Your task to perform on an android device: Search for vegetarian restaurants on Maps Image 0: 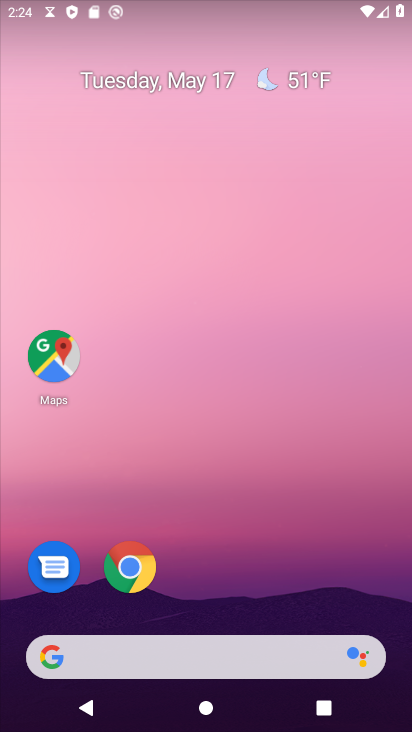
Step 0: click (57, 361)
Your task to perform on an android device: Search for vegetarian restaurants on Maps Image 1: 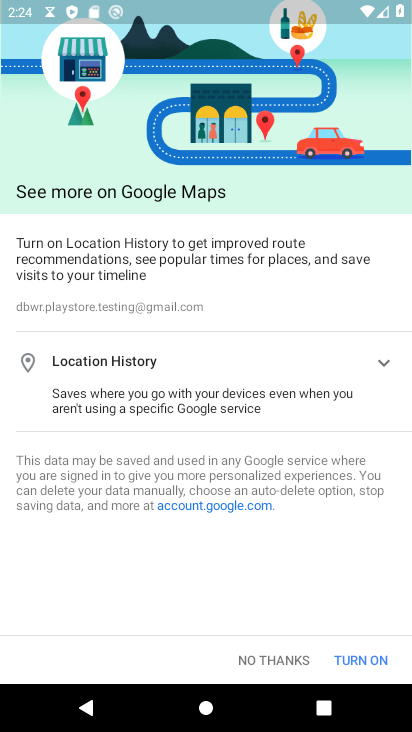
Step 1: click (352, 665)
Your task to perform on an android device: Search for vegetarian restaurants on Maps Image 2: 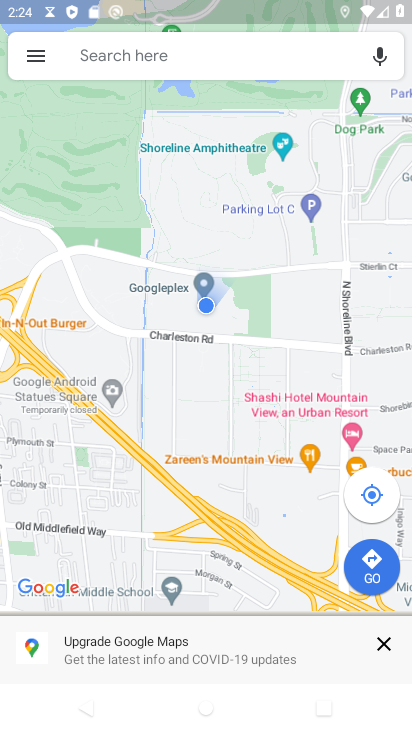
Step 2: click (132, 67)
Your task to perform on an android device: Search for vegetarian restaurants on Maps Image 3: 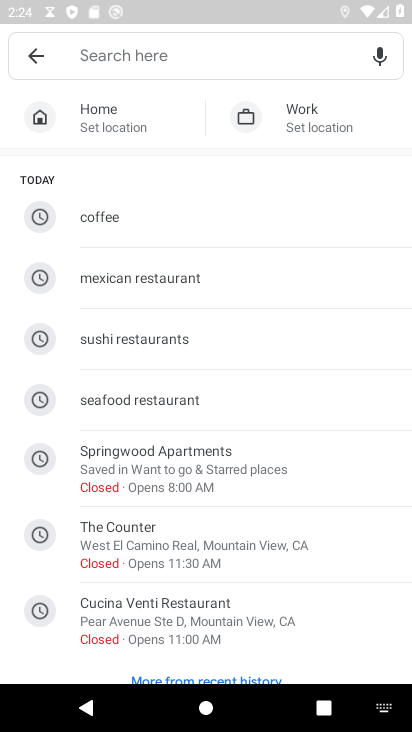
Step 3: type "vegetarian restaurants"
Your task to perform on an android device: Search for vegetarian restaurants on Maps Image 4: 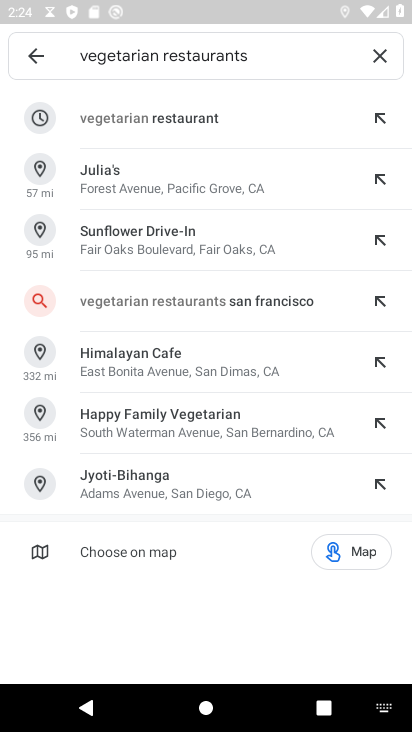
Step 4: click (205, 115)
Your task to perform on an android device: Search for vegetarian restaurants on Maps Image 5: 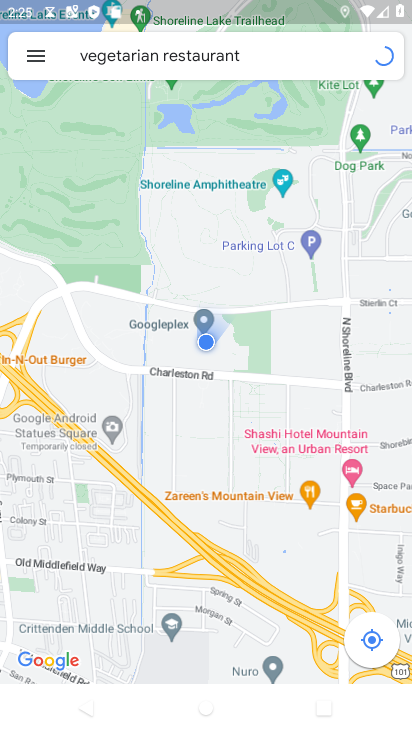
Step 5: task complete